Your task to perform on an android device: change timer sound Image 0: 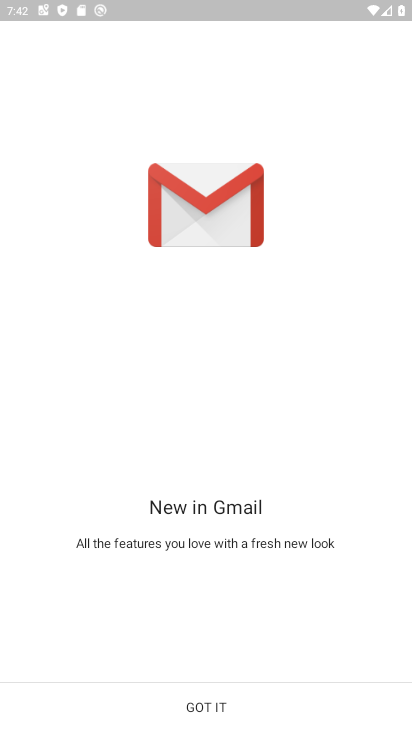
Step 0: press home button
Your task to perform on an android device: change timer sound Image 1: 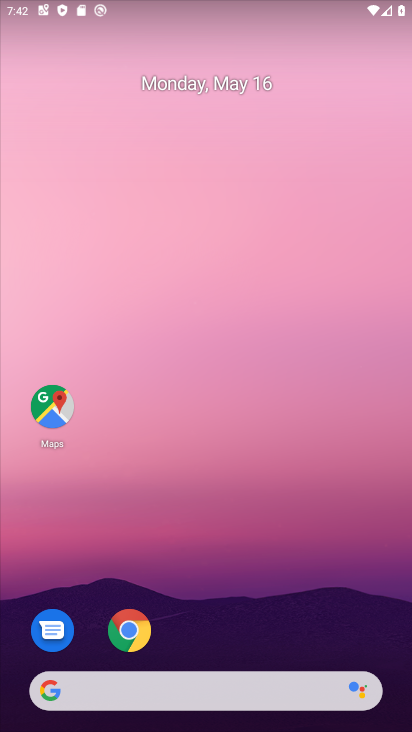
Step 1: drag from (212, 499) to (180, 174)
Your task to perform on an android device: change timer sound Image 2: 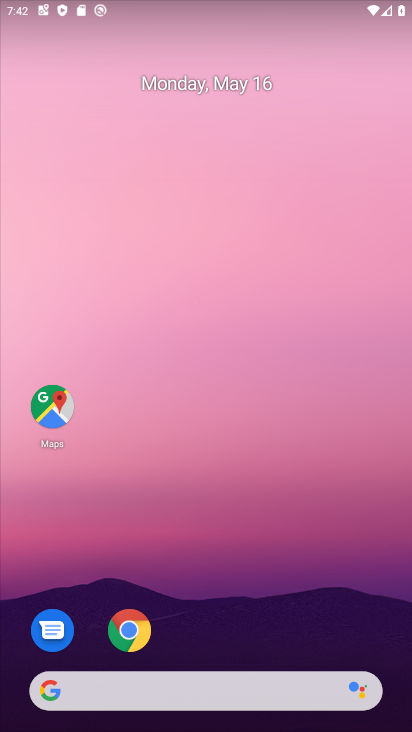
Step 2: drag from (171, 553) to (190, 9)
Your task to perform on an android device: change timer sound Image 3: 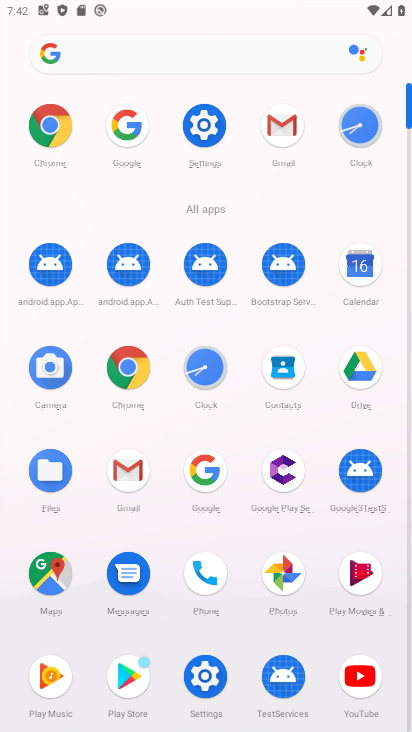
Step 3: click (203, 128)
Your task to perform on an android device: change timer sound Image 4: 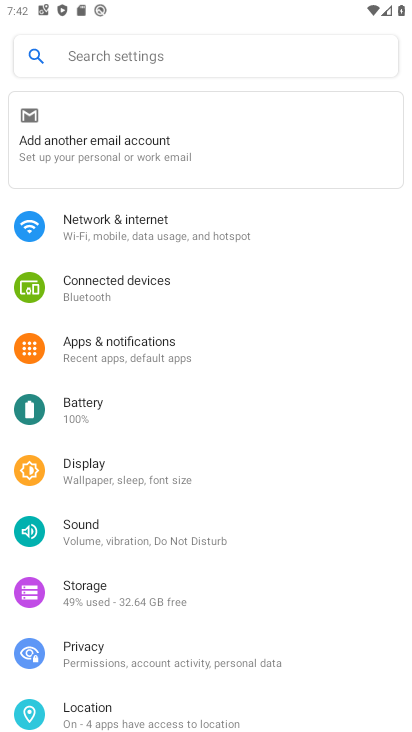
Step 4: click (170, 520)
Your task to perform on an android device: change timer sound Image 5: 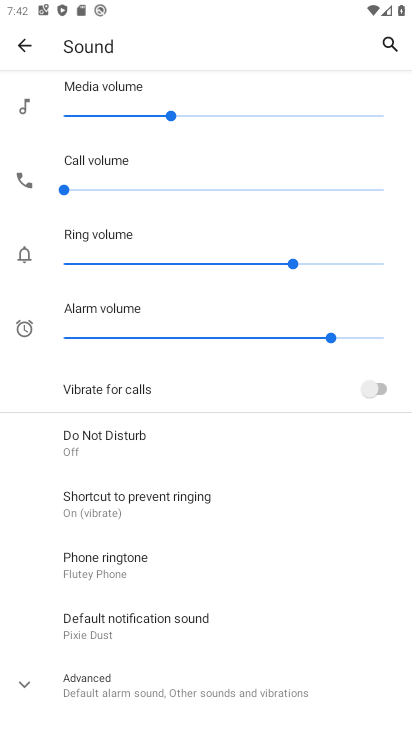
Step 5: drag from (172, 597) to (177, 265)
Your task to perform on an android device: change timer sound Image 6: 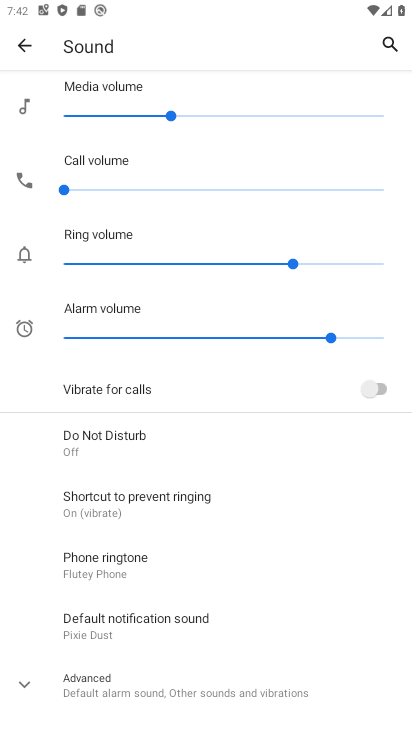
Step 6: click (160, 668)
Your task to perform on an android device: change timer sound Image 7: 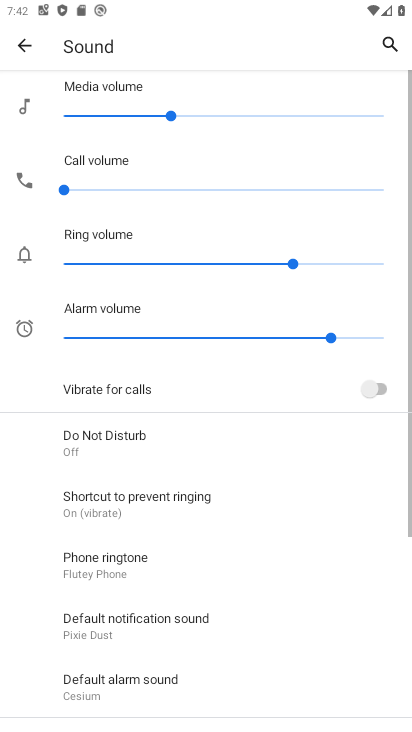
Step 7: drag from (170, 653) to (160, 304)
Your task to perform on an android device: change timer sound Image 8: 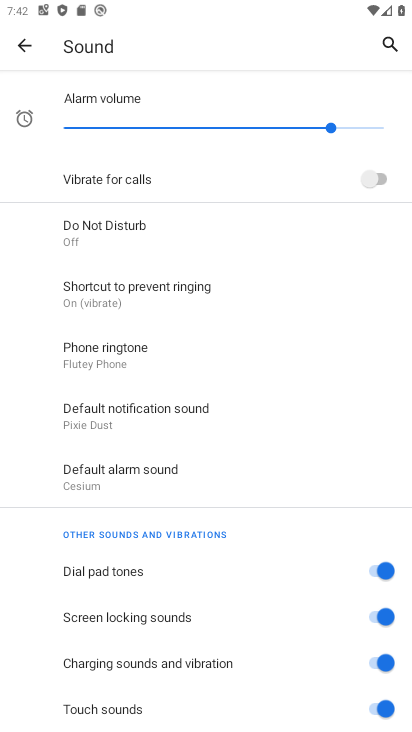
Step 8: drag from (268, 334) to (199, 660)
Your task to perform on an android device: change timer sound Image 9: 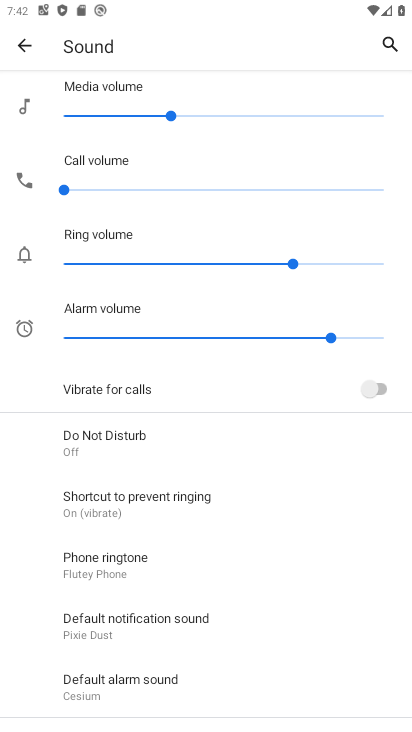
Step 9: click (392, 44)
Your task to perform on an android device: change timer sound Image 10: 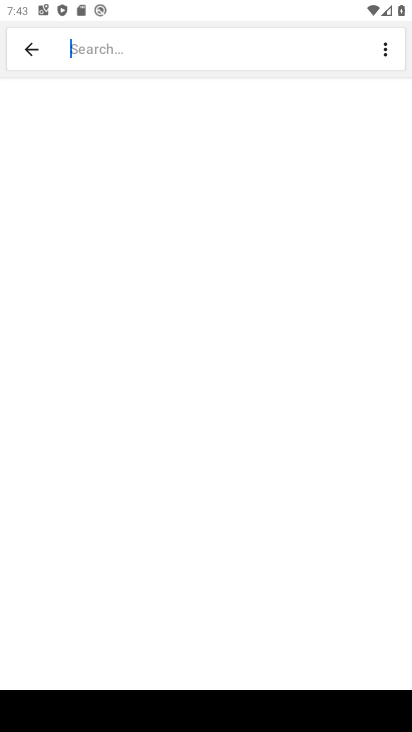
Step 10: type "Timer sound"
Your task to perform on an android device: change timer sound Image 11: 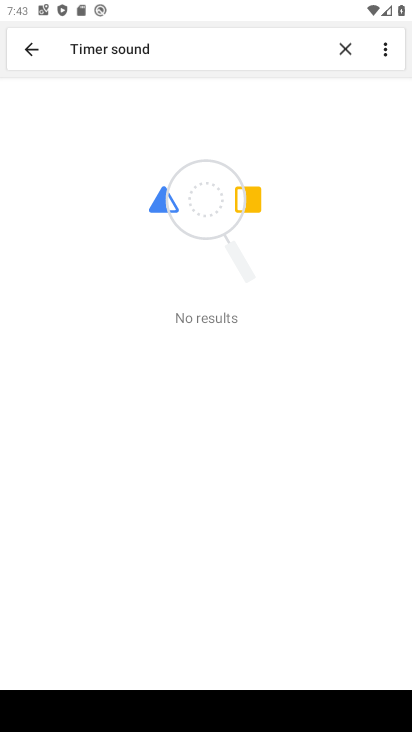
Step 11: press home button
Your task to perform on an android device: change timer sound Image 12: 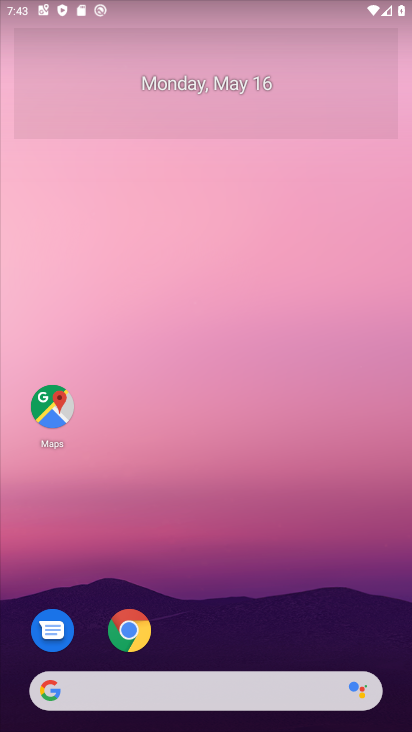
Step 12: drag from (224, 610) to (221, 228)
Your task to perform on an android device: change timer sound Image 13: 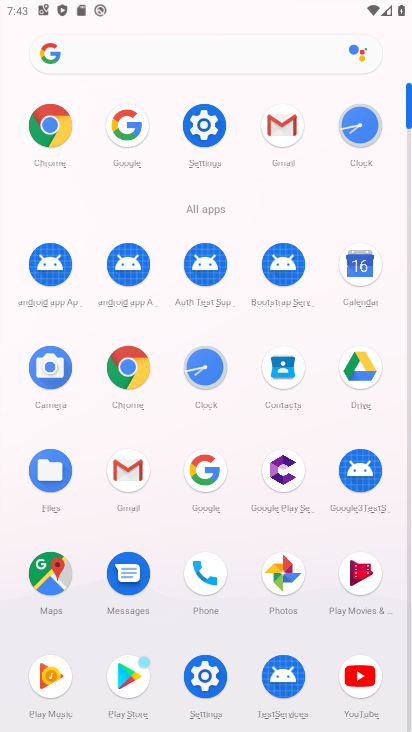
Step 13: click (359, 132)
Your task to perform on an android device: change timer sound Image 14: 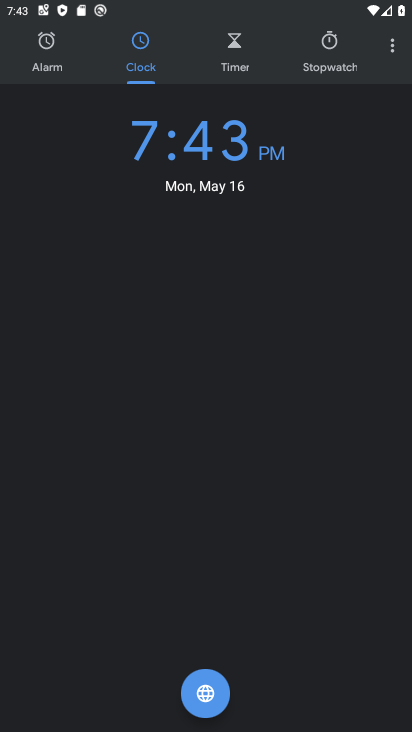
Step 14: click (240, 54)
Your task to perform on an android device: change timer sound Image 15: 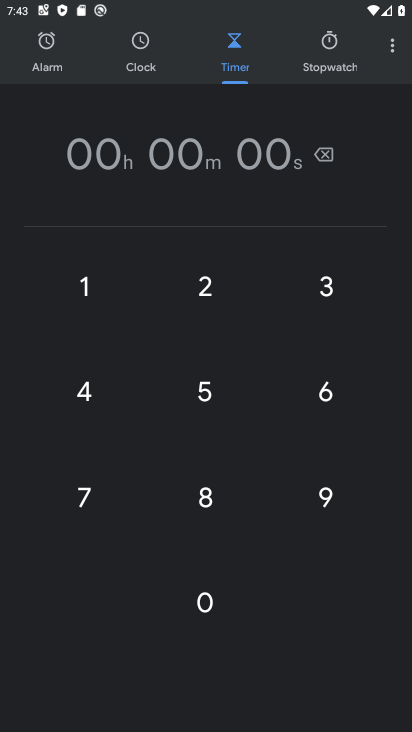
Step 15: click (389, 39)
Your task to perform on an android device: change timer sound Image 16: 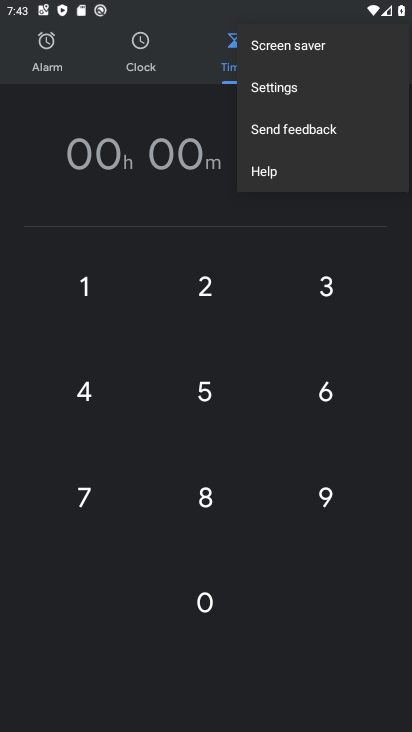
Step 16: click (319, 89)
Your task to perform on an android device: change timer sound Image 17: 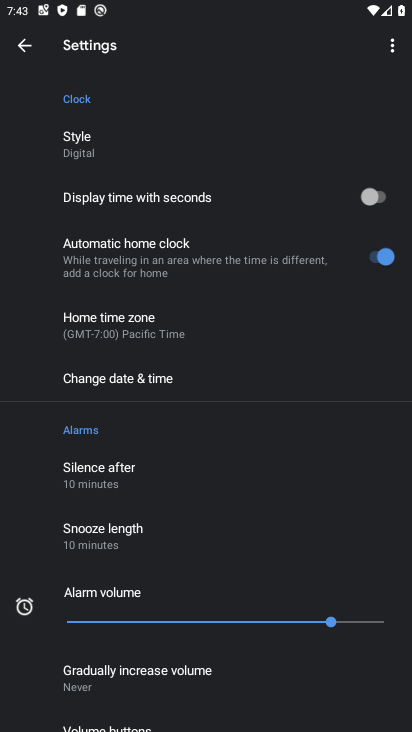
Step 17: drag from (224, 536) to (253, 217)
Your task to perform on an android device: change timer sound Image 18: 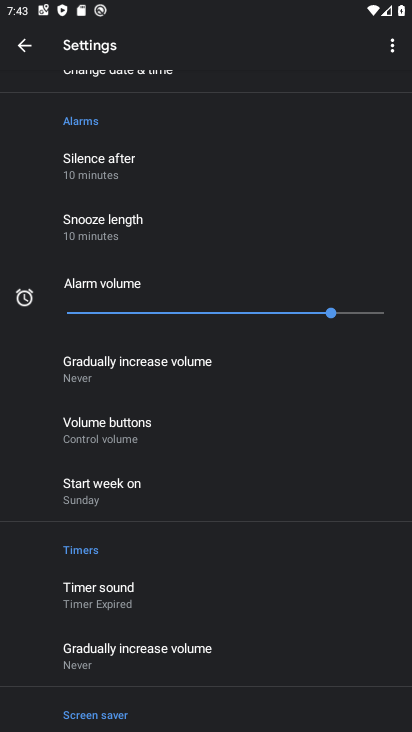
Step 18: click (173, 601)
Your task to perform on an android device: change timer sound Image 19: 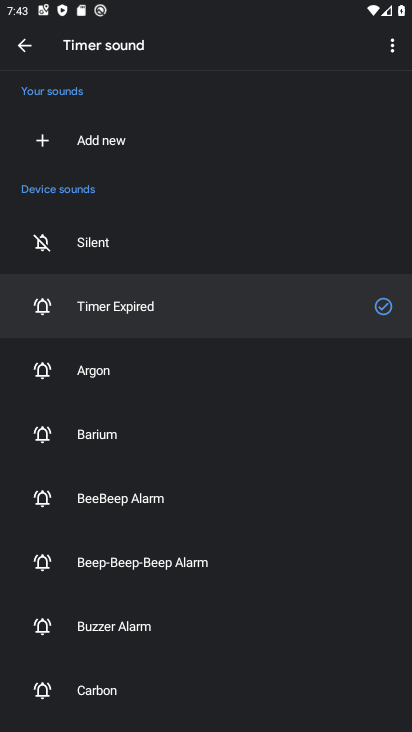
Step 19: click (111, 560)
Your task to perform on an android device: change timer sound Image 20: 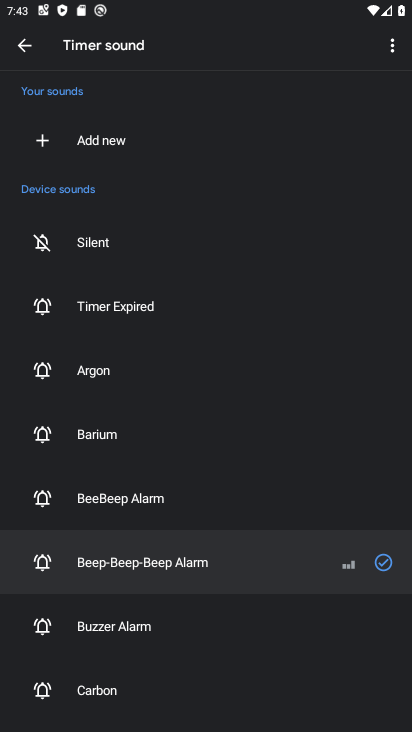
Step 20: click (220, 366)
Your task to perform on an android device: change timer sound Image 21: 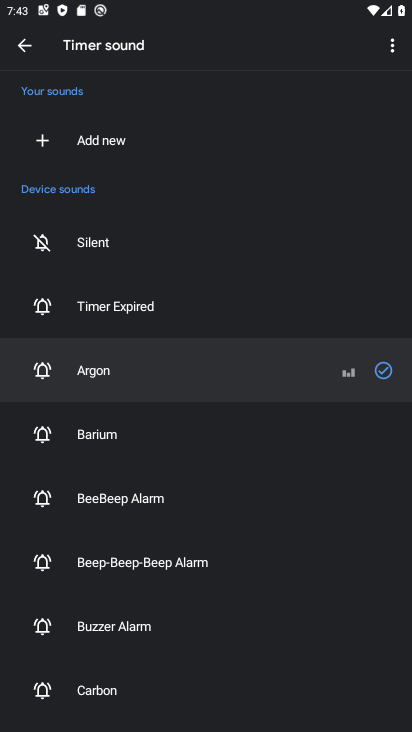
Step 21: task complete